Your task to perform on an android device: Open calendar and show me the third week of next month Image 0: 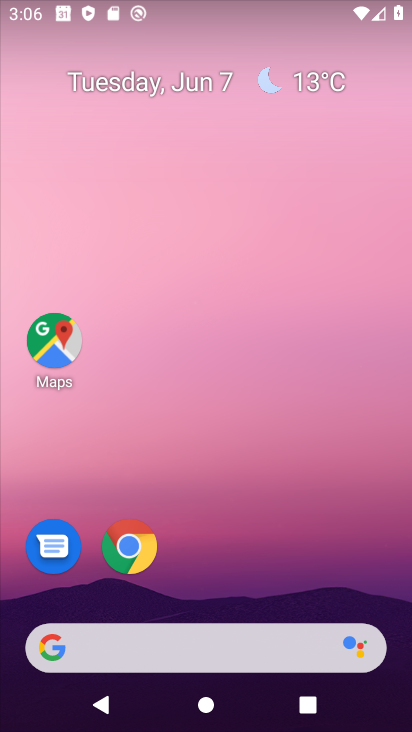
Step 0: click (166, 85)
Your task to perform on an android device: Open calendar and show me the third week of next month Image 1: 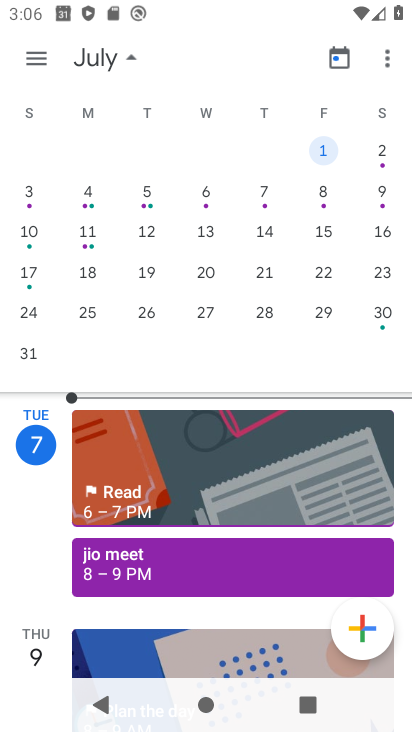
Step 1: click (326, 234)
Your task to perform on an android device: Open calendar and show me the third week of next month Image 2: 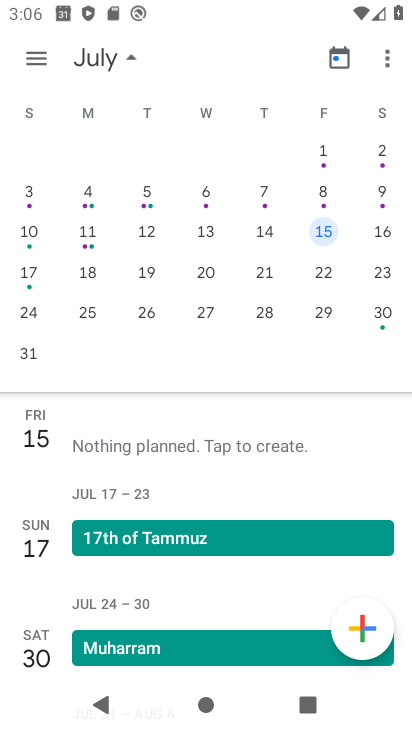
Step 2: task complete